Your task to perform on an android device: set default search engine in the chrome app Image 0: 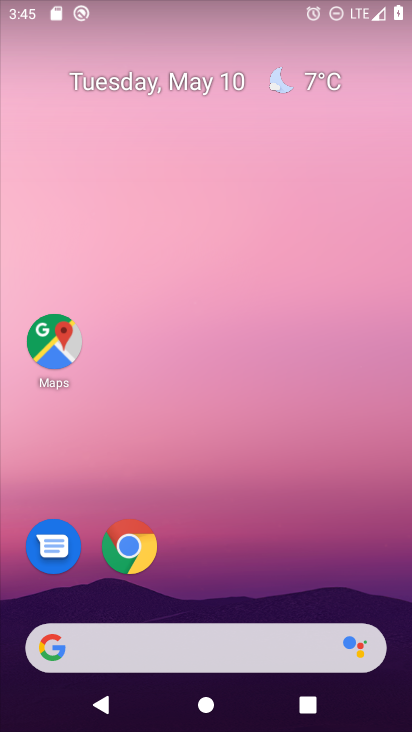
Step 0: click (134, 550)
Your task to perform on an android device: set default search engine in the chrome app Image 1: 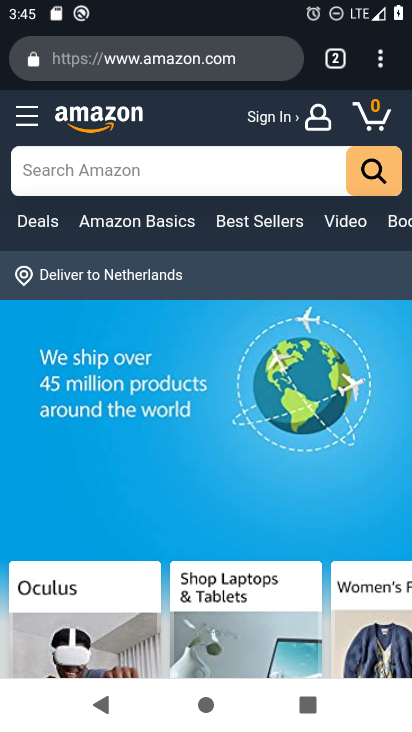
Step 1: click (382, 66)
Your task to perform on an android device: set default search engine in the chrome app Image 2: 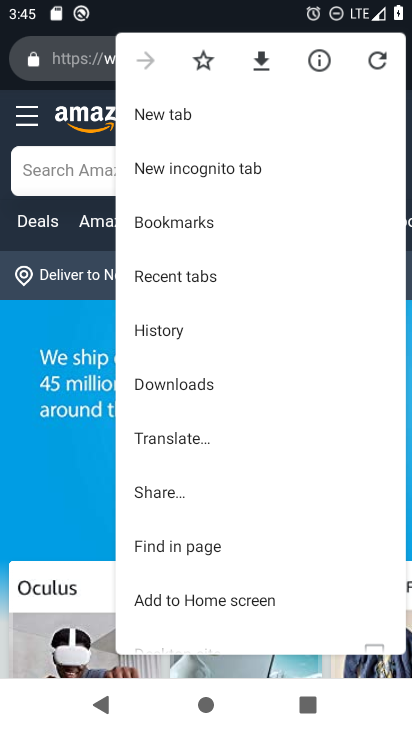
Step 2: drag from (185, 565) to (214, 371)
Your task to perform on an android device: set default search engine in the chrome app Image 3: 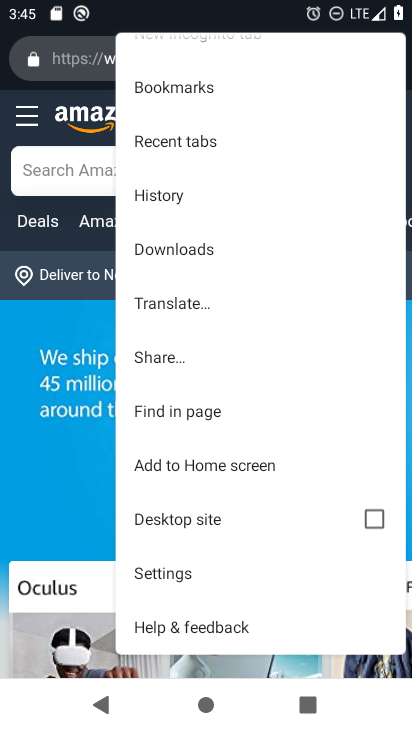
Step 3: click (174, 574)
Your task to perform on an android device: set default search engine in the chrome app Image 4: 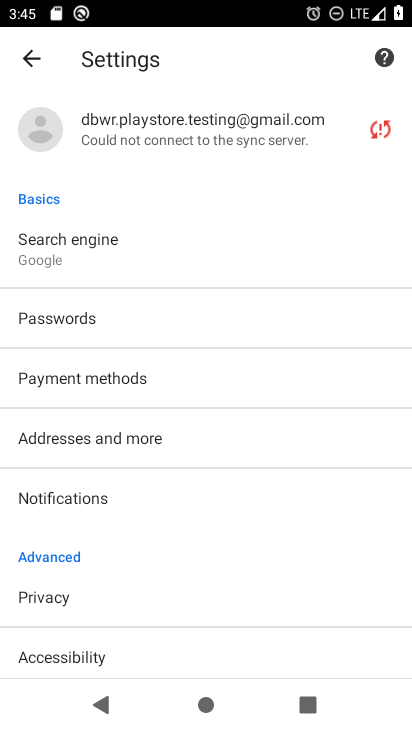
Step 4: click (107, 247)
Your task to perform on an android device: set default search engine in the chrome app Image 5: 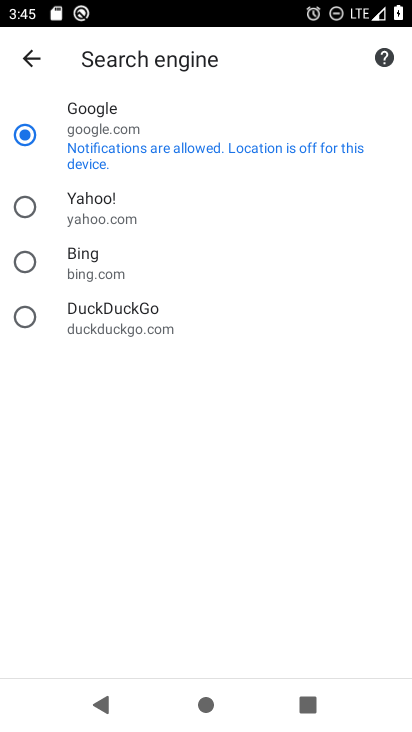
Step 5: task complete